Your task to perform on an android device: Go to display settings Image 0: 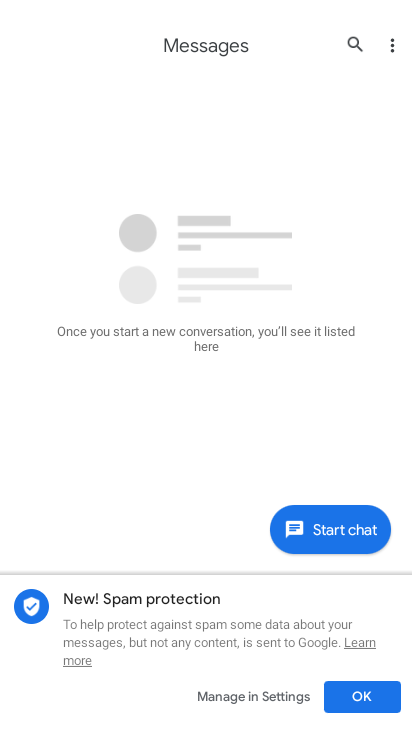
Step 0: press home button
Your task to perform on an android device: Go to display settings Image 1: 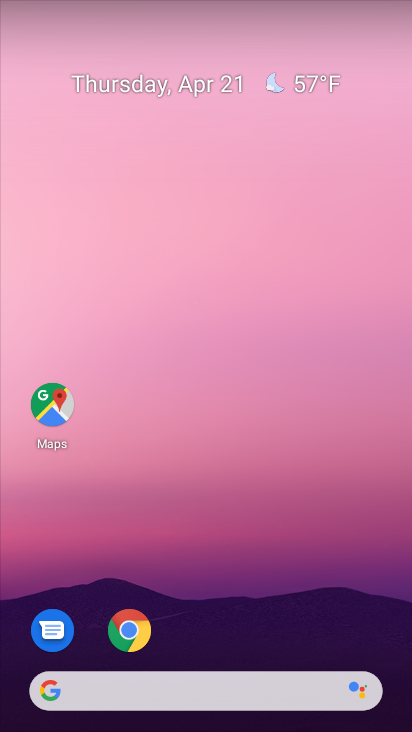
Step 1: drag from (314, 568) to (267, 56)
Your task to perform on an android device: Go to display settings Image 2: 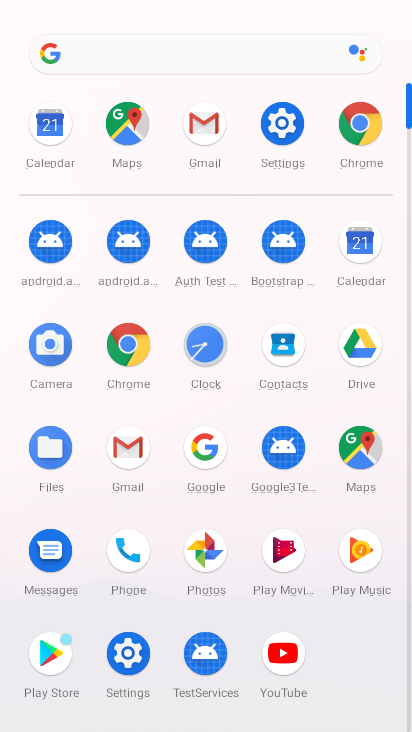
Step 2: click (120, 645)
Your task to perform on an android device: Go to display settings Image 3: 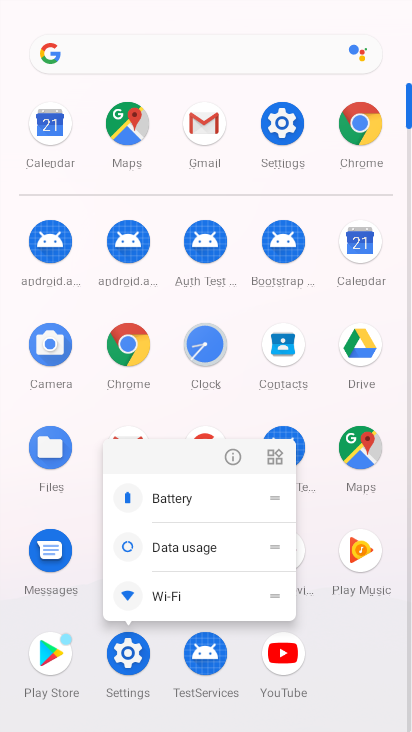
Step 3: click (120, 645)
Your task to perform on an android device: Go to display settings Image 4: 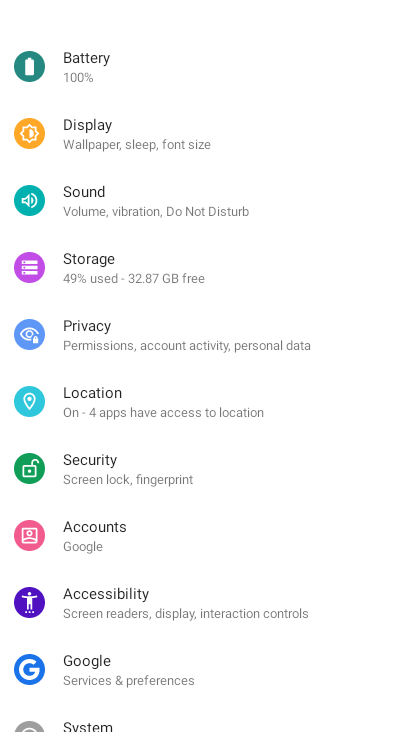
Step 4: click (229, 141)
Your task to perform on an android device: Go to display settings Image 5: 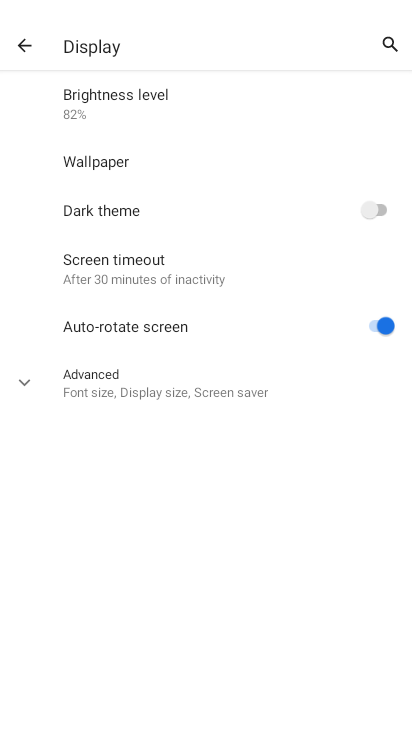
Step 5: task complete